Your task to perform on an android device: turn on priority inbox in the gmail app Image 0: 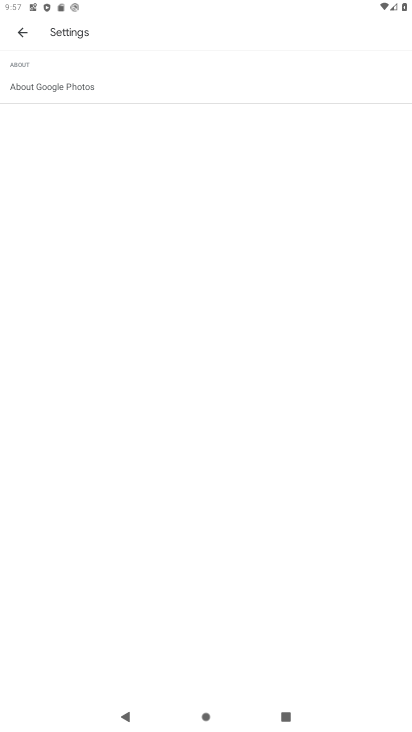
Step 0: press home button
Your task to perform on an android device: turn on priority inbox in the gmail app Image 1: 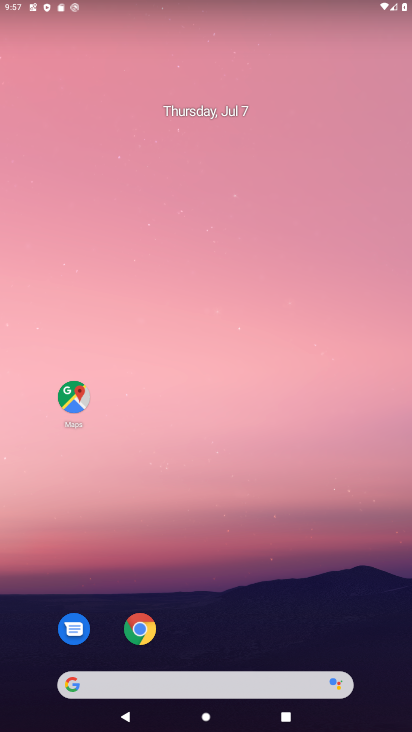
Step 1: drag from (209, 649) to (174, 19)
Your task to perform on an android device: turn on priority inbox in the gmail app Image 2: 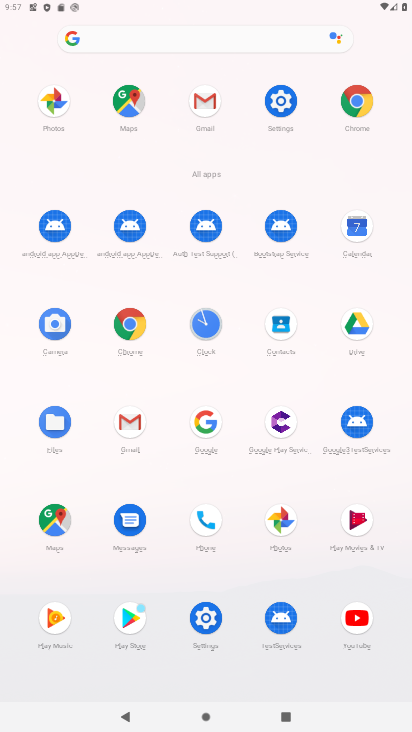
Step 2: click (136, 412)
Your task to perform on an android device: turn on priority inbox in the gmail app Image 3: 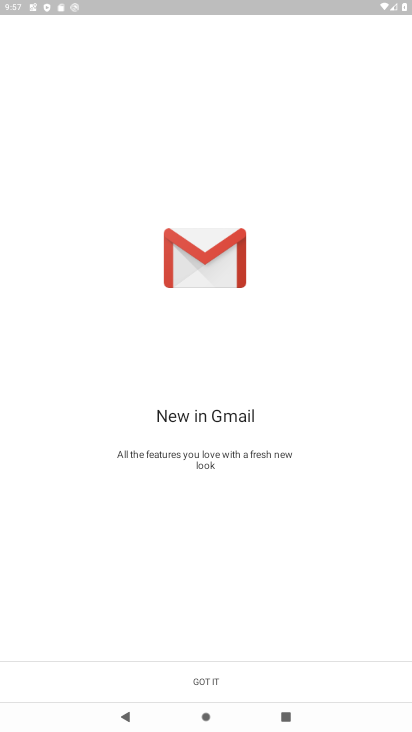
Step 3: click (177, 671)
Your task to perform on an android device: turn on priority inbox in the gmail app Image 4: 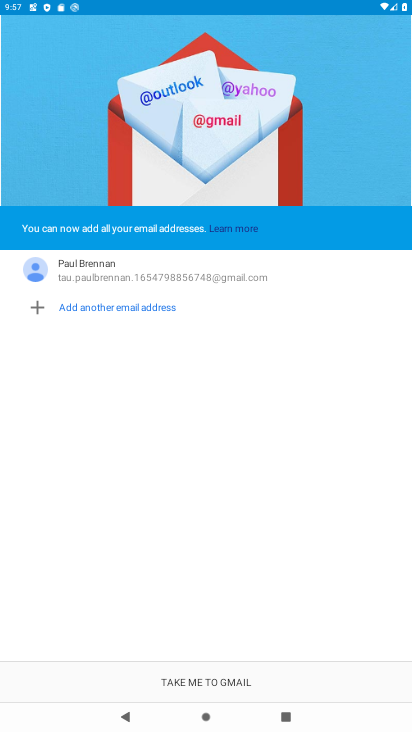
Step 4: click (186, 670)
Your task to perform on an android device: turn on priority inbox in the gmail app Image 5: 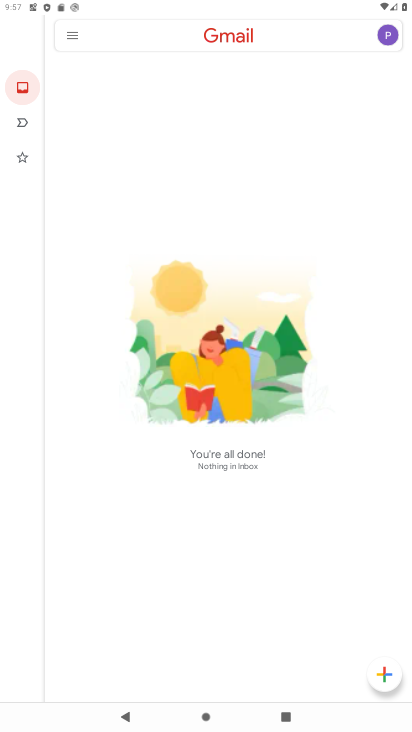
Step 5: click (67, 36)
Your task to perform on an android device: turn on priority inbox in the gmail app Image 6: 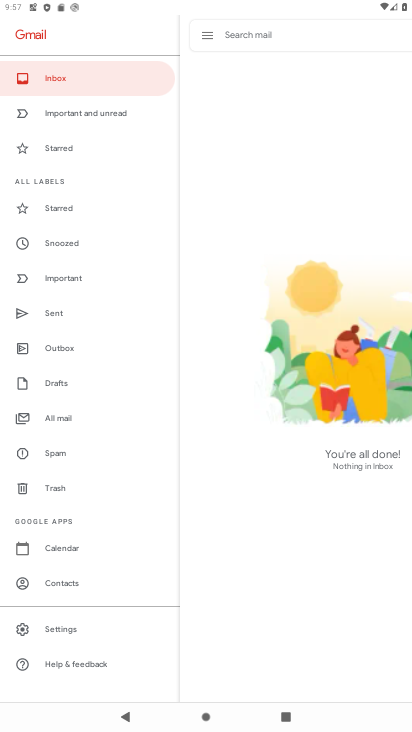
Step 6: drag from (88, 602) to (67, 270)
Your task to perform on an android device: turn on priority inbox in the gmail app Image 7: 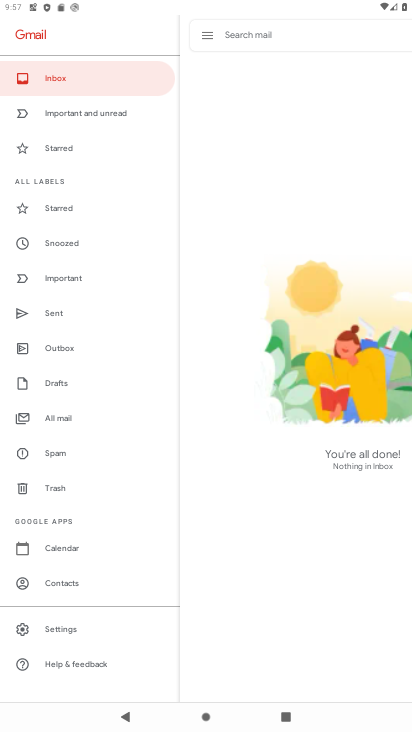
Step 7: click (56, 623)
Your task to perform on an android device: turn on priority inbox in the gmail app Image 8: 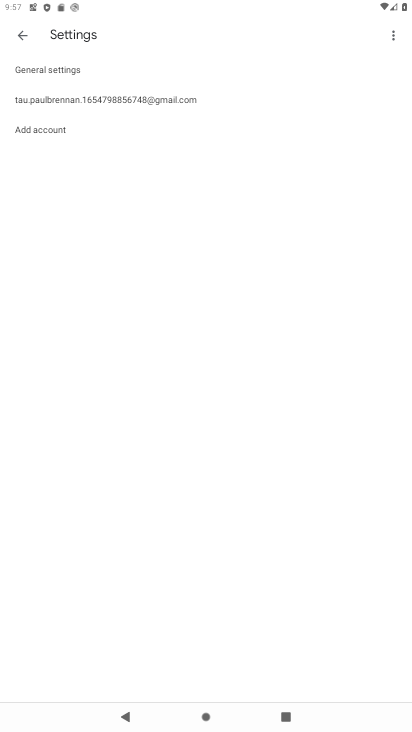
Step 8: click (60, 100)
Your task to perform on an android device: turn on priority inbox in the gmail app Image 9: 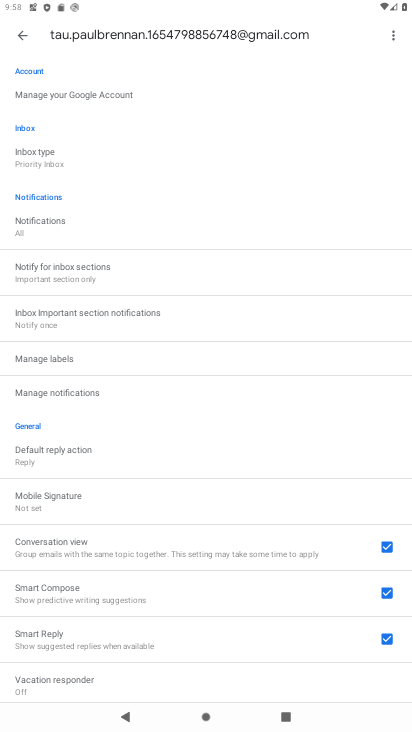
Step 9: click (47, 163)
Your task to perform on an android device: turn on priority inbox in the gmail app Image 10: 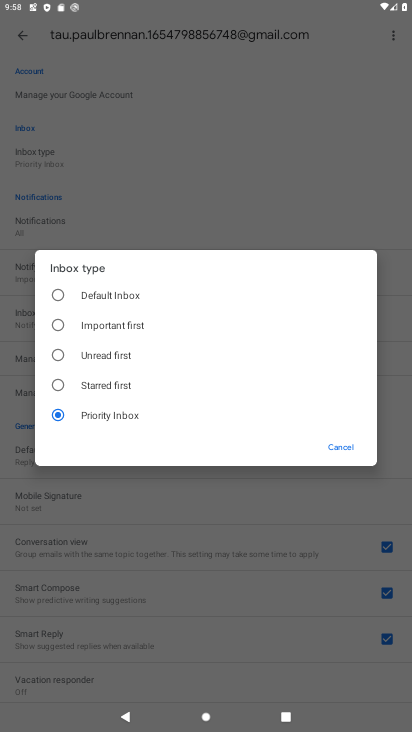
Step 10: click (74, 411)
Your task to perform on an android device: turn on priority inbox in the gmail app Image 11: 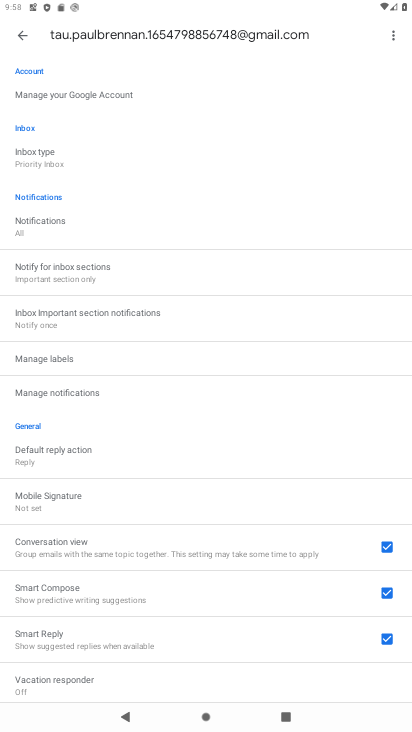
Step 11: task complete